Your task to perform on an android device: Open Google Maps and go to "Timeline" Image 0: 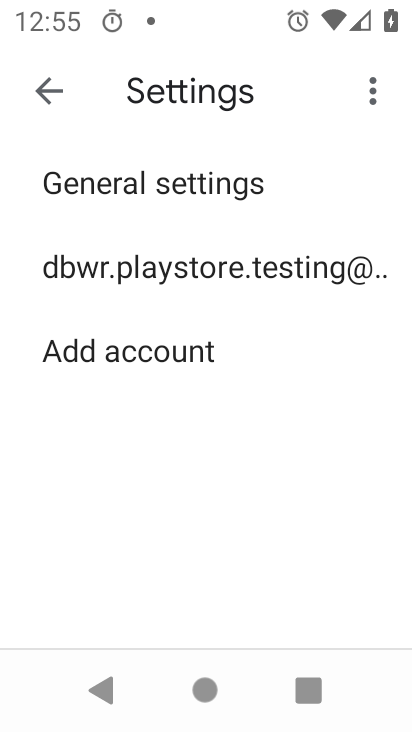
Step 0: press home button
Your task to perform on an android device: Open Google Maps and go to "Timeline" Image 1: 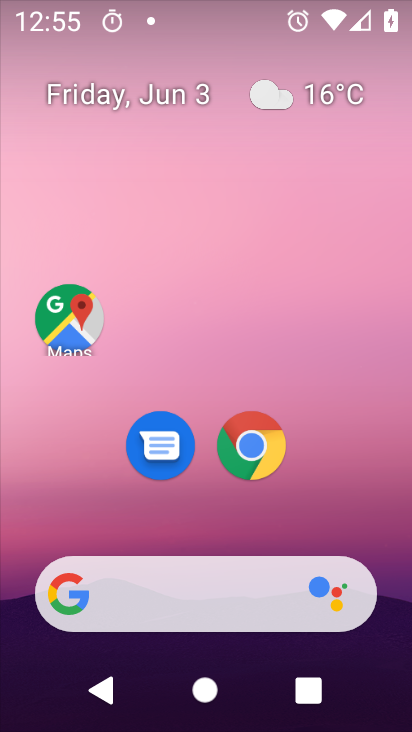
Step 1: click (68, 312)
Your task to perform on an android device: Open Google Maps and go to "Timeline" Image 2: 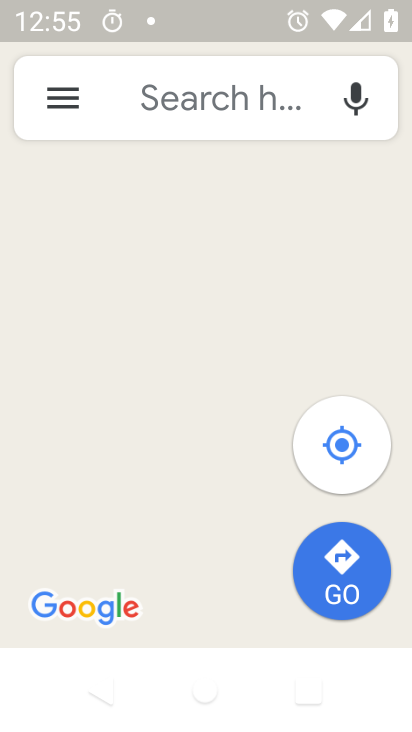
Step 2: click (91, 114)
Your task to perform on an android device: Open Google Maps and go to "Timeline" Image 3: 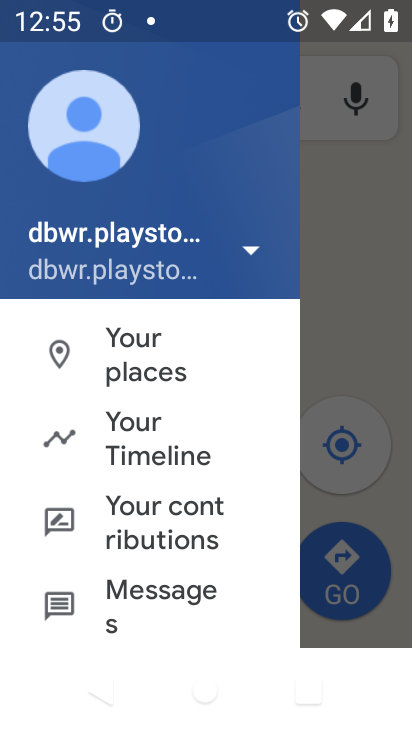
Step 3: click (169, 452)
Your task to perform on an android device: Open Google Maps and go to "Timeline" Image 4: 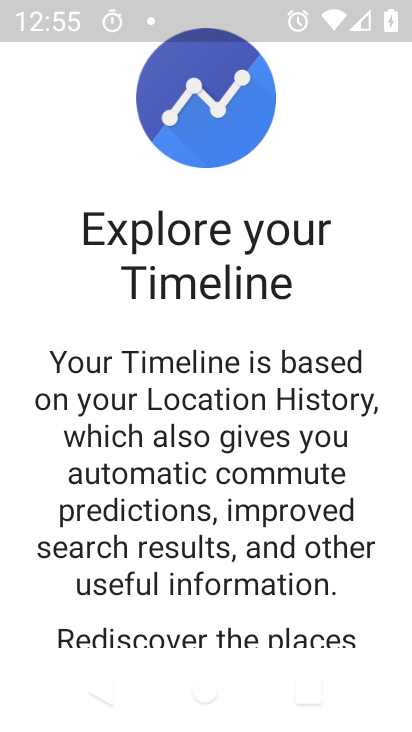
Step 4: drag from (143, 577) to (171, 217)
Your task to perform on an android device: Open Google Maps and go to "Timeline" Image 5: 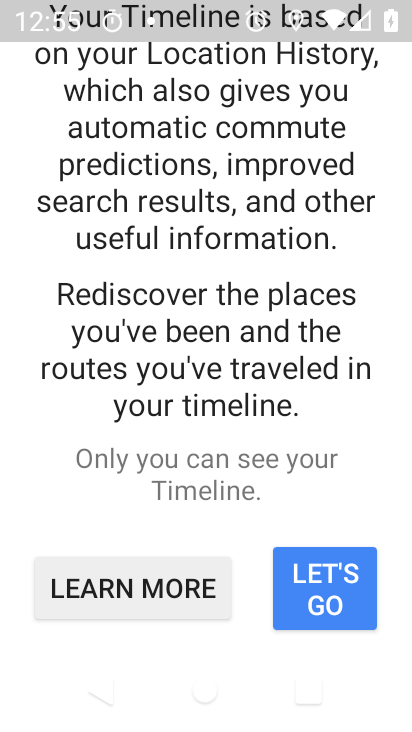
Step 5: click (326, 577)
Your task to perform on an android device: Open Google Maps and go to "Timeline" Image 6: 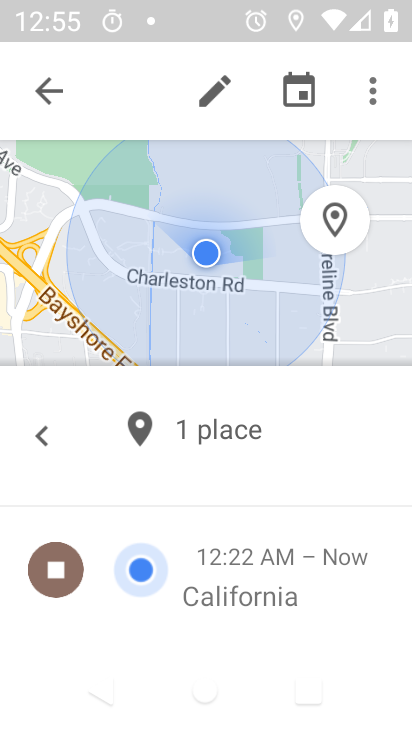
Step 6: task complete